Your task to perform on an android device: What's the weather today? Image 0: 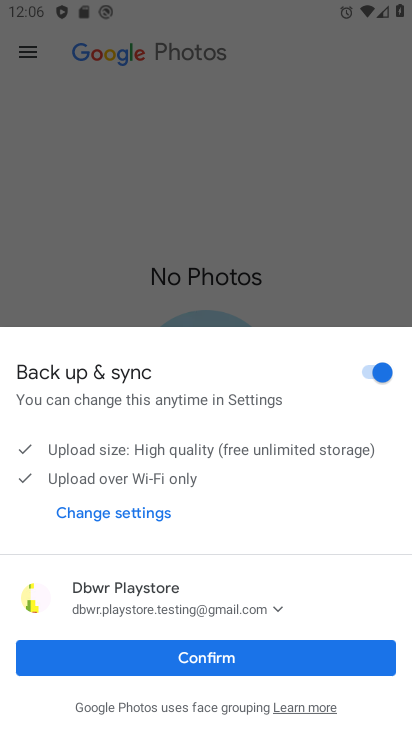
Step 0: press home button
Your task to perform on an android device: What's the weather today? Image 1: 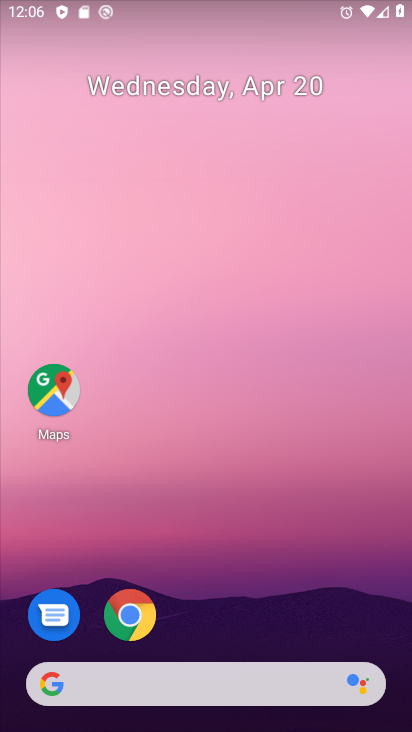
Step 1: drag from (355, 568) to (332, 218)
Your task to perform on an android device: What's the weather today? Image 2: 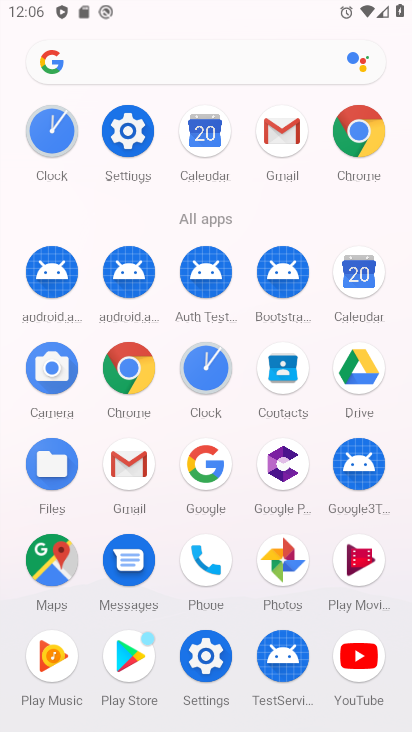
Step 2: press home button
Your task to perform on an android device: What's the weather today? Image 3: 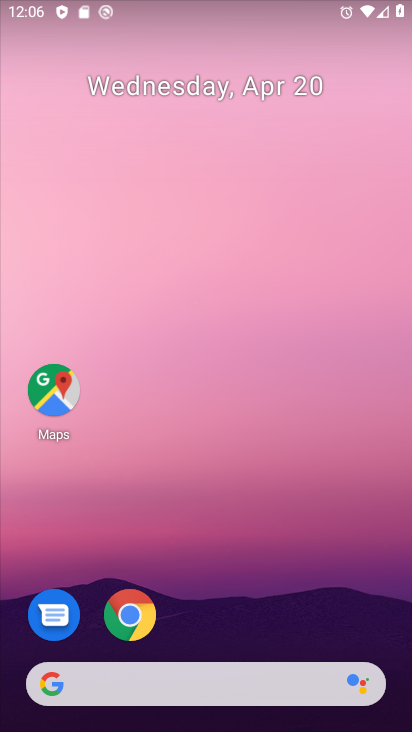
Step 3: drag from (1, 304) to (401, 343)
Your task to perform on an android device: What's the weather today? Image 4: 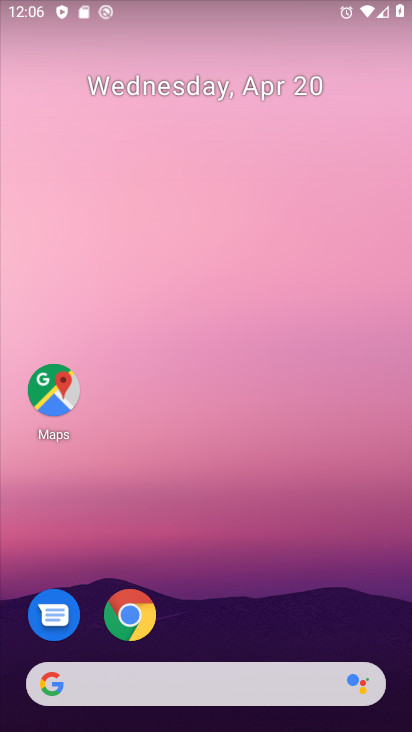
Step 4: drag from (251, 278) to (403, 286)
Your task to perform on an android device: What's the weather today? Image 5: 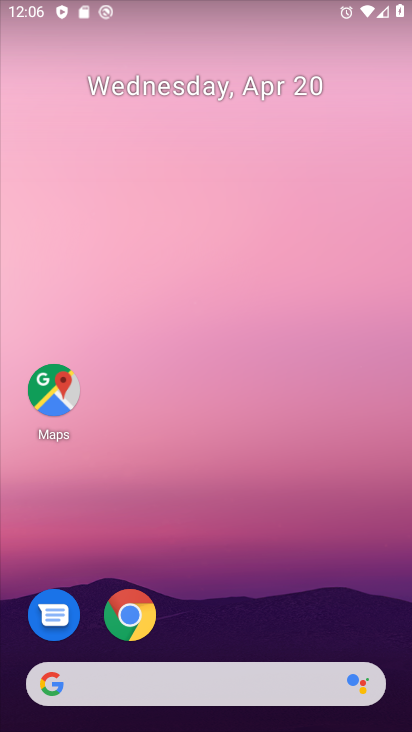
Step 5: drag from (7, 277) to (311, 302)
Your task to perform on an android device: What's the weather today? Image 6: 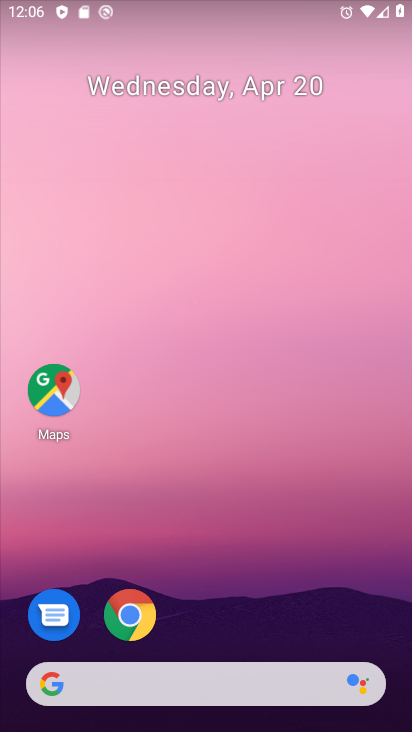
Step 6: drag from (3, 280) to (400, 287)
Your task to perform on an android device: What's the weather today? Image 7: 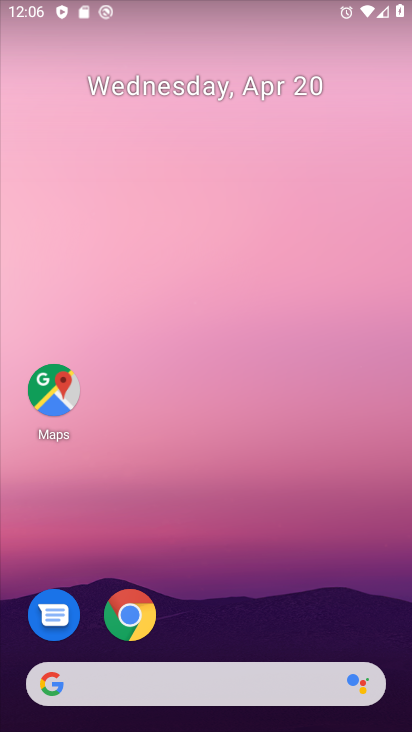
Step 7: drag from (2, 272) to (374, 236)
Your task to perform on an android device: What's the weather today? Image 8: 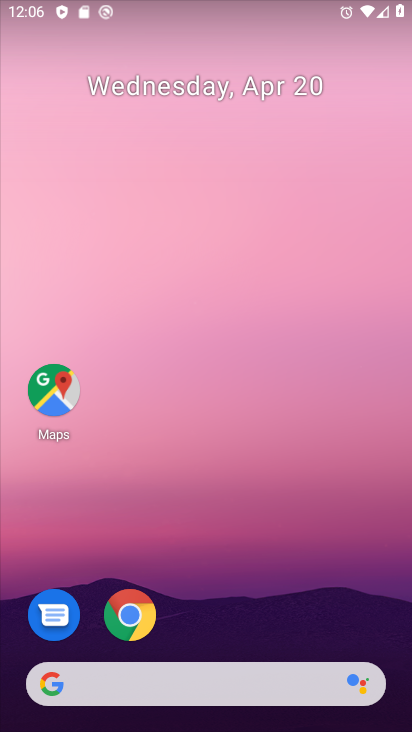
Step 8: drag from (6, 297) to (398, 353)
Your task to perform on an android device: What's the weather today? Image 9: 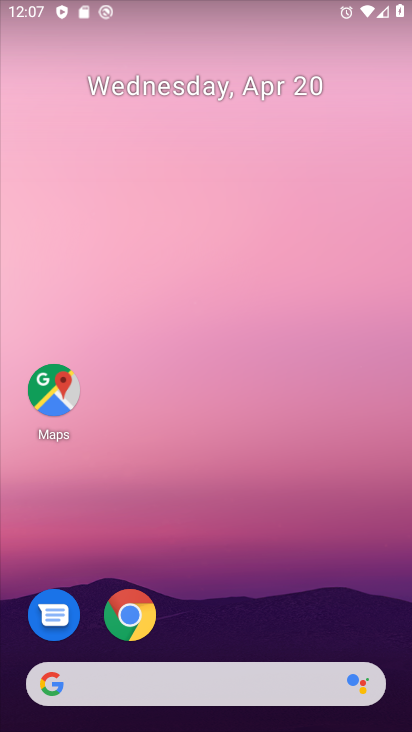
Step 9: drag from (5, 296) to (370, 308)
Your task to perform on an android device: What's the weather today? Image 10: 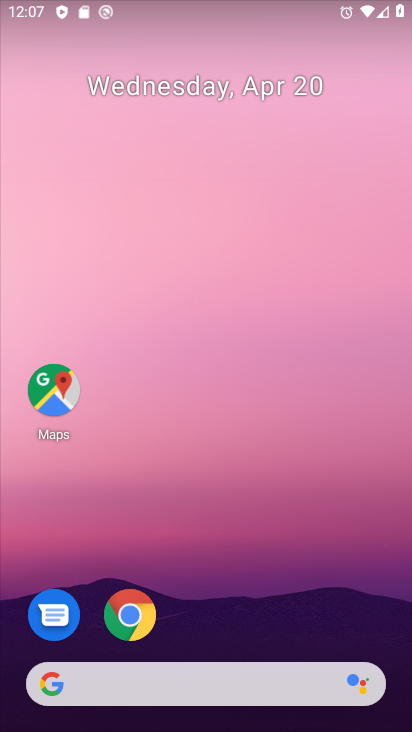
Step 10: drag from (10, 295) to (292, 323)
Your task to perform on an android device: What's the weather today? Image 11: 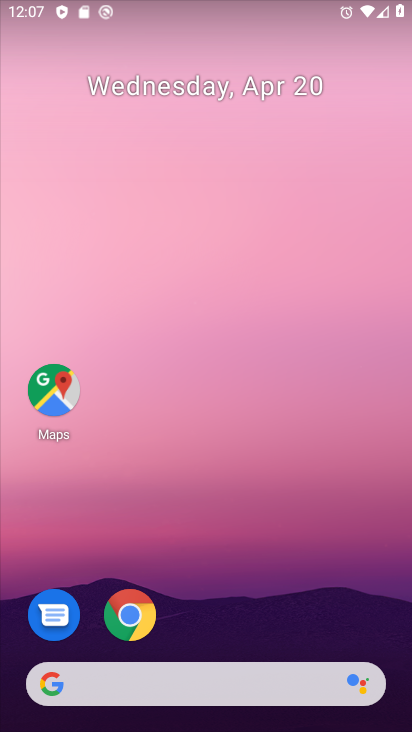
Step 11: click (382, 337)
Your task to perform on an android device: What's the weather today? Image 12: 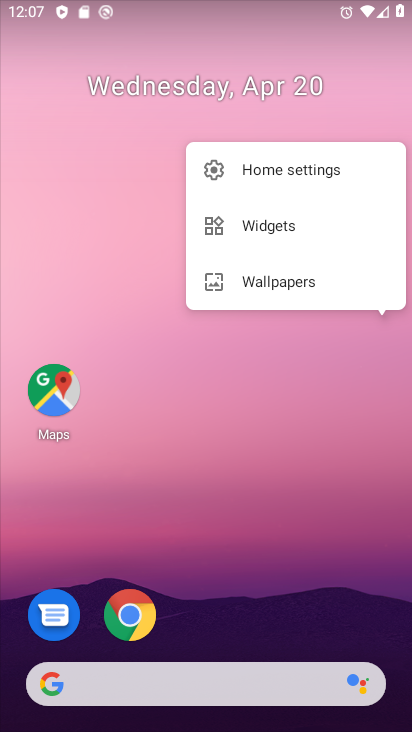
Step 12: click (33, 311)
Your task to perform on an android device: What's the weather today? Image 13: 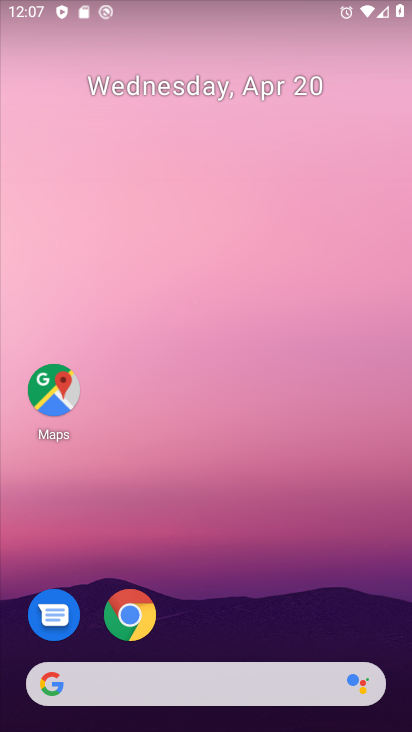
Step 13: drag from (86, 318) to (403, 324)
Your task to perform on an android device: What's the weather today? Image 14: 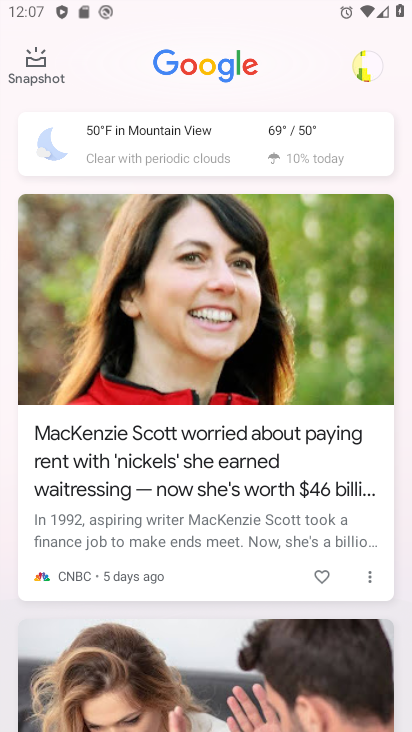
Step 14: click (175, 146)
Your task to perform on an android device: What's the weather today? Image 15: 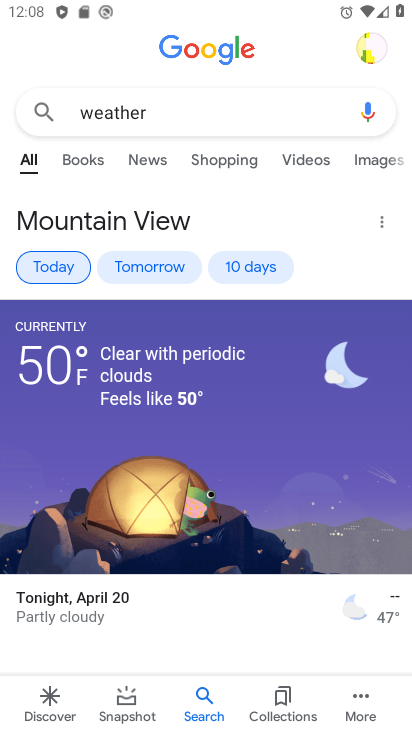
Step 15: task complete